Your task to perform on an android device: Open Amazon Image 0: 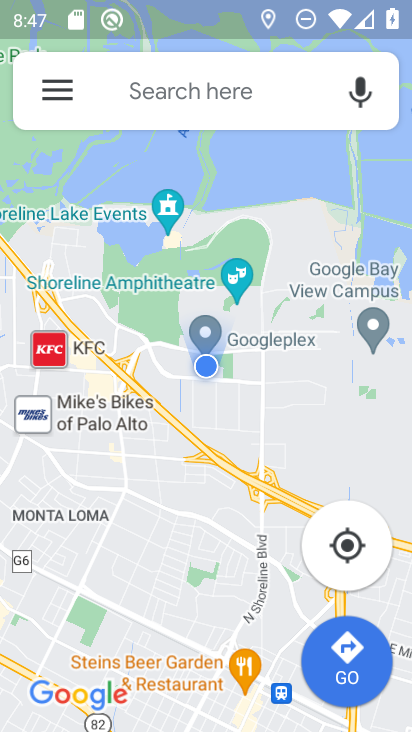
Step 0: press home button
Your task to perform on an android device: Open Amazon Image 1: 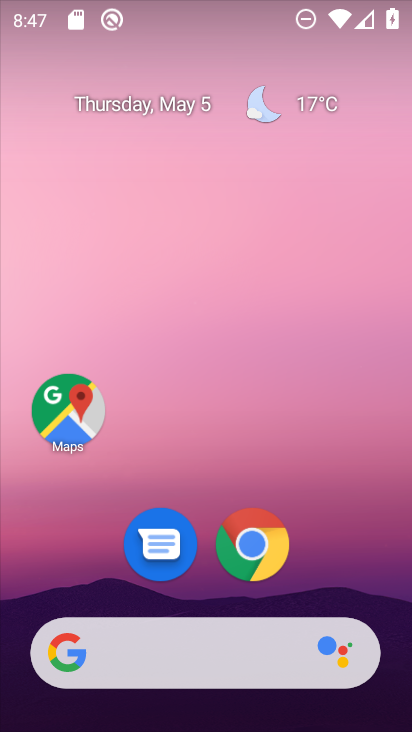
Step 1: drag from (383, 608) to (236, 0)
Your task to perform on an android device: Open Amazon Image 2: 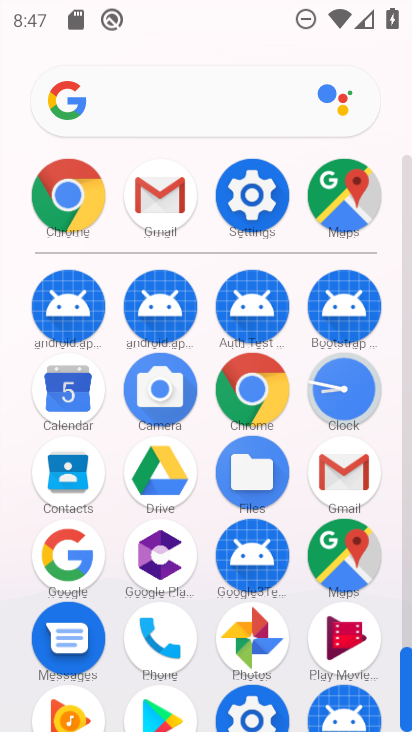
Step 2: click (256, 410)
Your task to perform on an android device: Open Amazon Image 3: 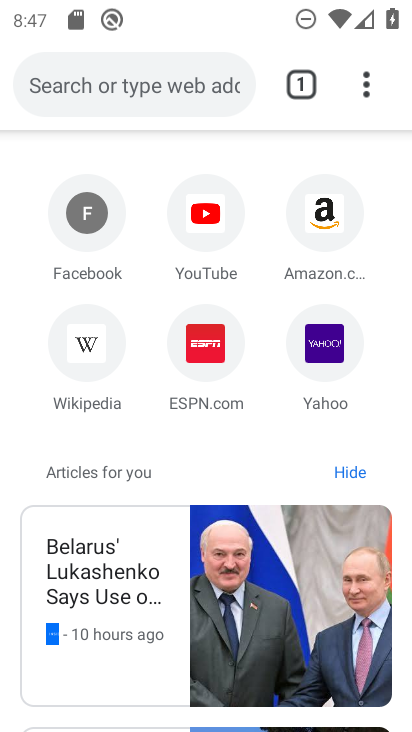
Step 3: click (313, 227)
Your task to perform on an android device: Open Amazon Image 4: 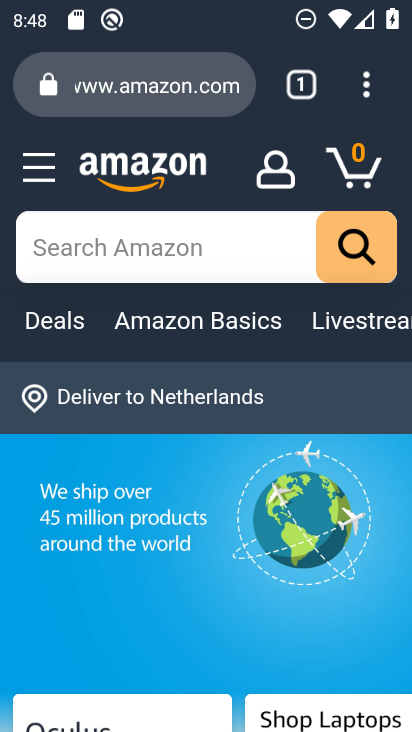
Step 4: task complete